Your task to perform on an android device: turn off airplane mode Image 0: 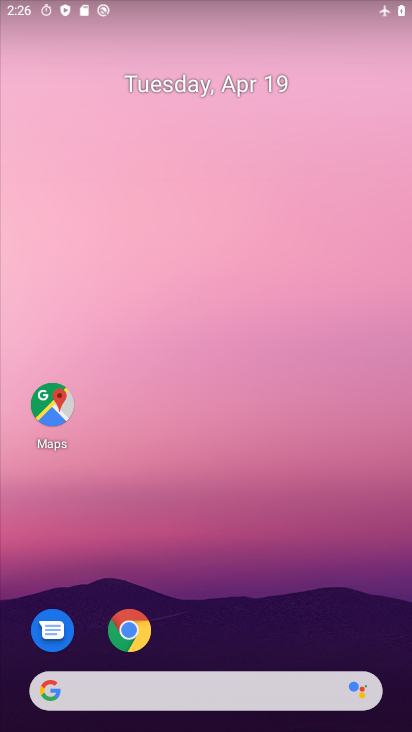
Step 0: drag from (272, 617) to (262, 98)
Your task to perform on an android device: turn off airplane mode Image 1: 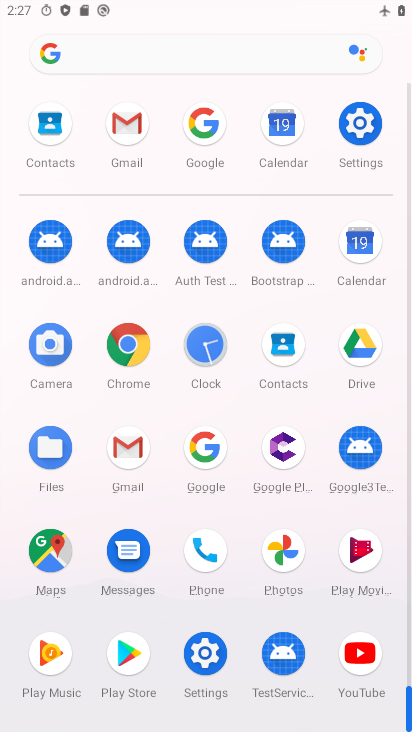
Step 1: click (362, 125)
Your task to perform on an android device: turn off airplane mode Image 2: 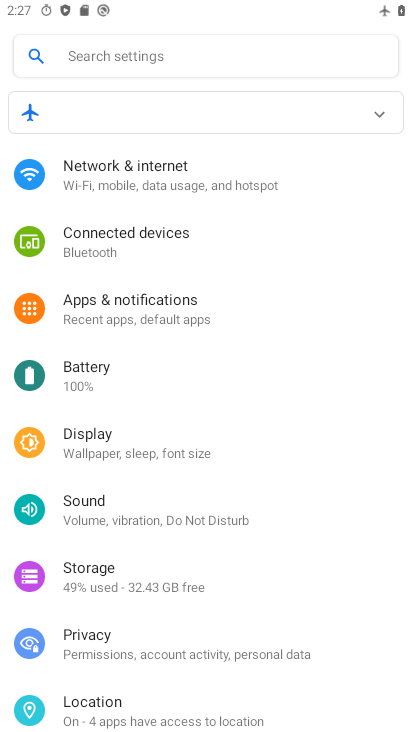
Step 2: click (186, 180)
Your task to perform on an android device: turn off airplane mode Image 3: 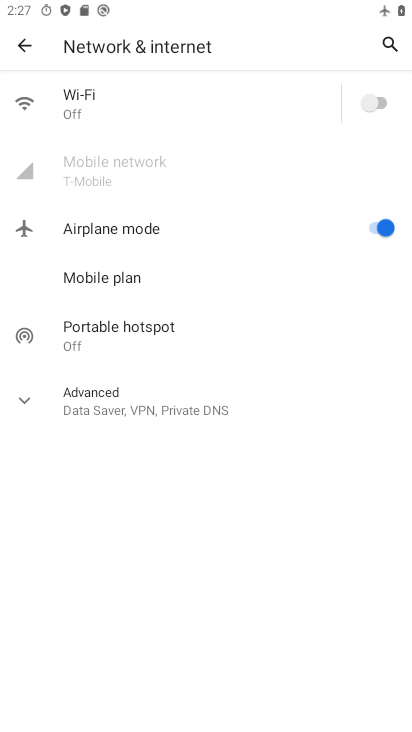
Step 3: click (369, 226)
Your task to perform on an android device: turn off airplane mode Image 4: 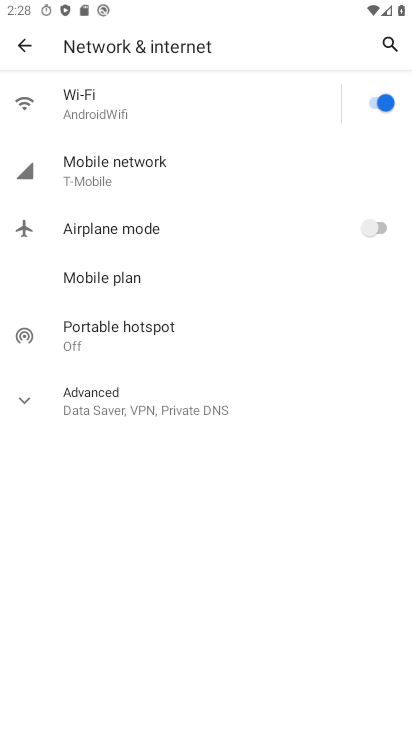
Step 4: task complete